Your task to perform on an android device: Open the calendar and show me this week's events? Image 0: 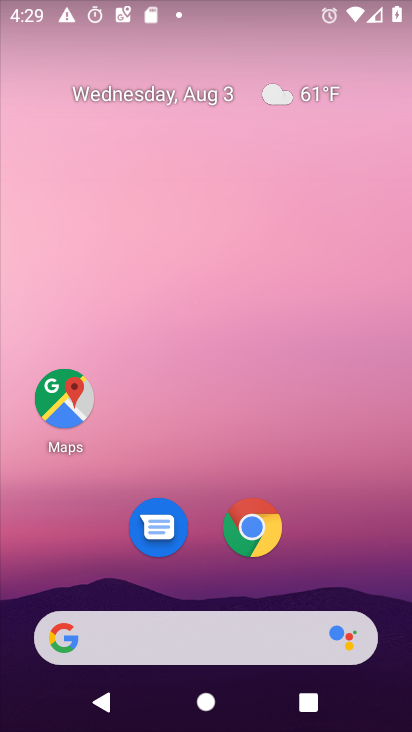
Step 0: drag from (377, 559) to (351, 48)
Your task to perform on an android device: Open the calendar and show me this week's events? Image 1: 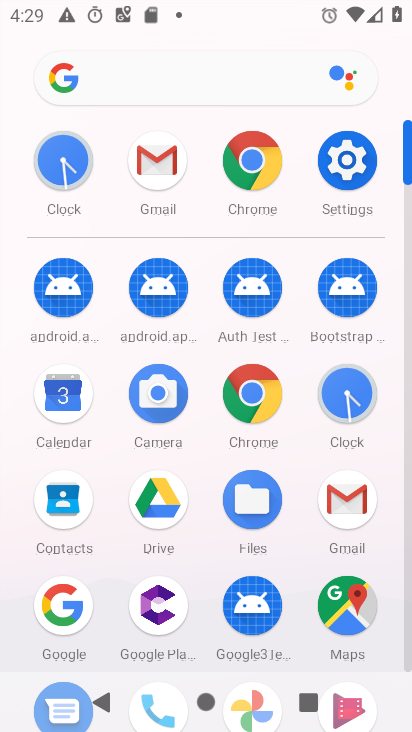
Step 1: drag from (206, 625) to (234, 253)
Your task to perform on an android device: Open the calendar and show me this week's events? Image 2: 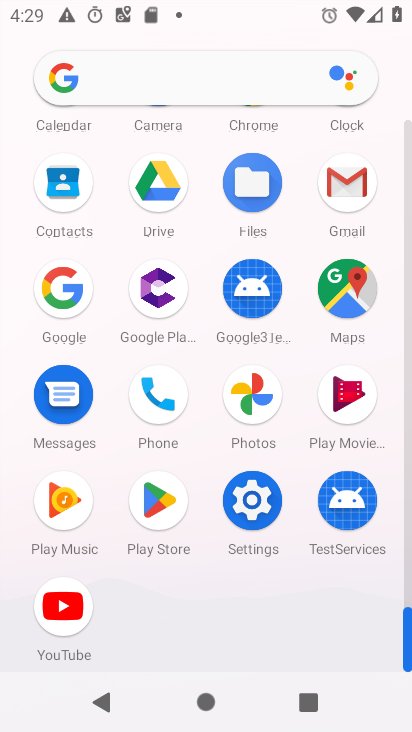
Step 2: drag from (300, 249) to (293, 625)
Your task to perform on an android device: Open the calendar and show me this week's events? Image 3: 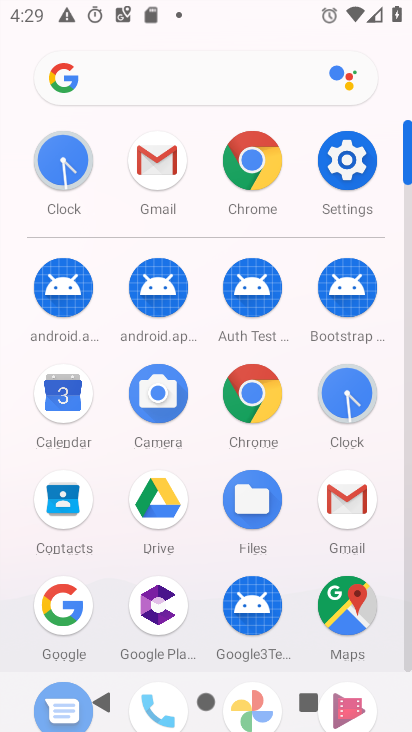
Step 3: click (59, 396)
Your task to perform on an android device: Open the calendar and show me this week's events? Image 4: 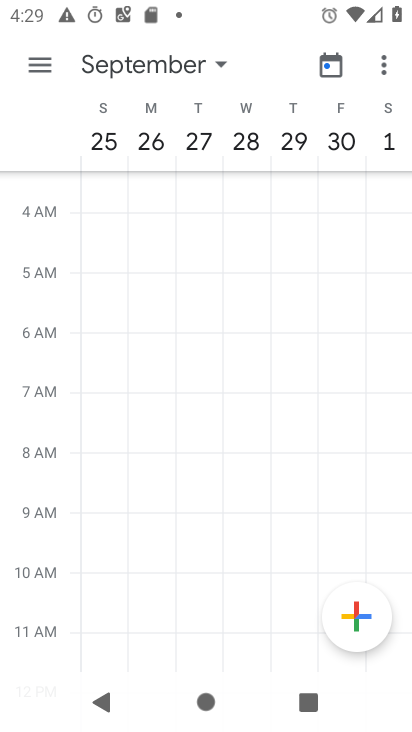
Step 4: click (137, 67)
Your task to perform on an android device: Open the calendar and show me this week's events? Image 5: 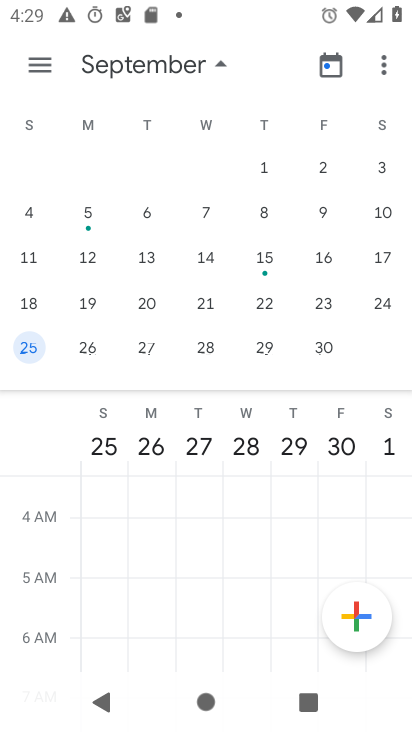
Step 5: drag from (57, 246) to (401, 238)
Your task to perform on an android device: Open the calendar and show me this week's events? Image 6: 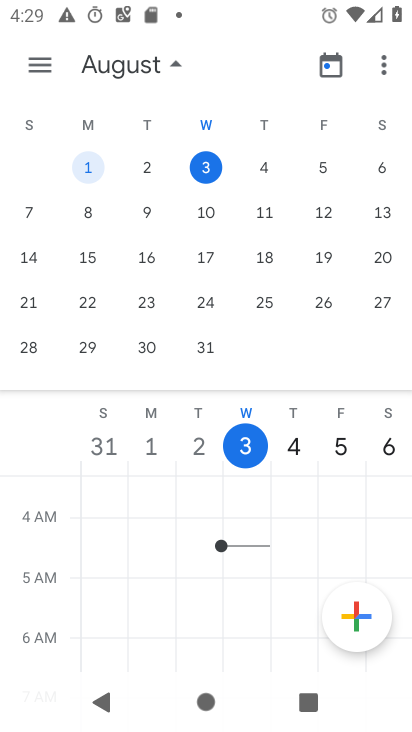
Step 6: click (209, 163)
Your task to perform on an android device: Open the calendar and show me this week's events? Image 7: 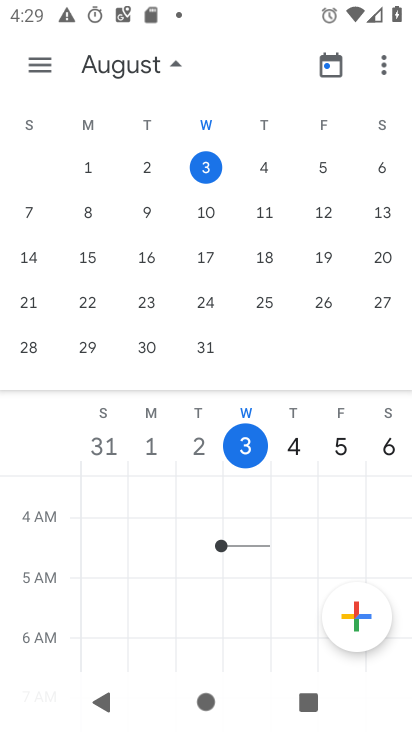
Step 7: task complete